Your task to perform on an android device: Empty the shopping cart on newegg. Add razer blade to the cart on newegg Image 0: 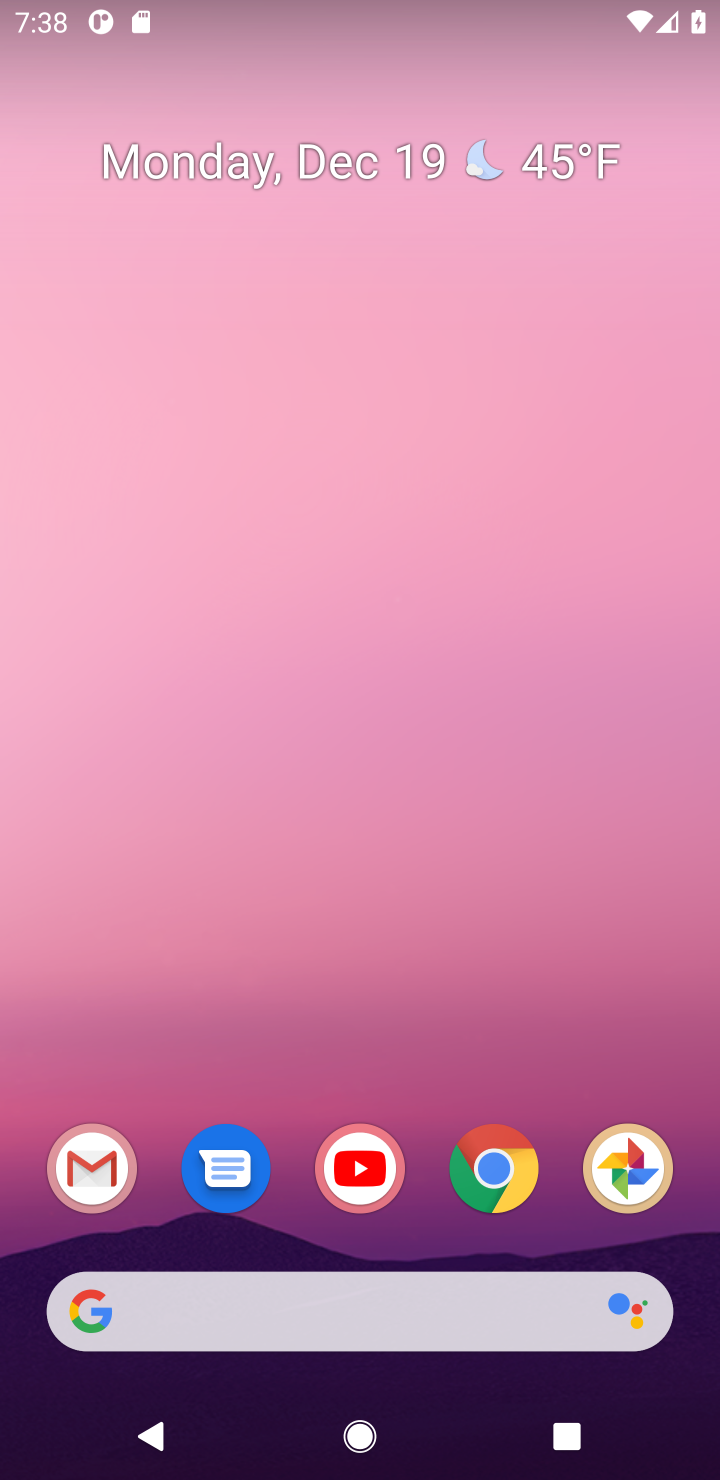
Step 0: click (502, 1185)
Your task to perform on an android device: Empty the shopping cart on newegg. Add razer blade to the cart on newegg Image 1: 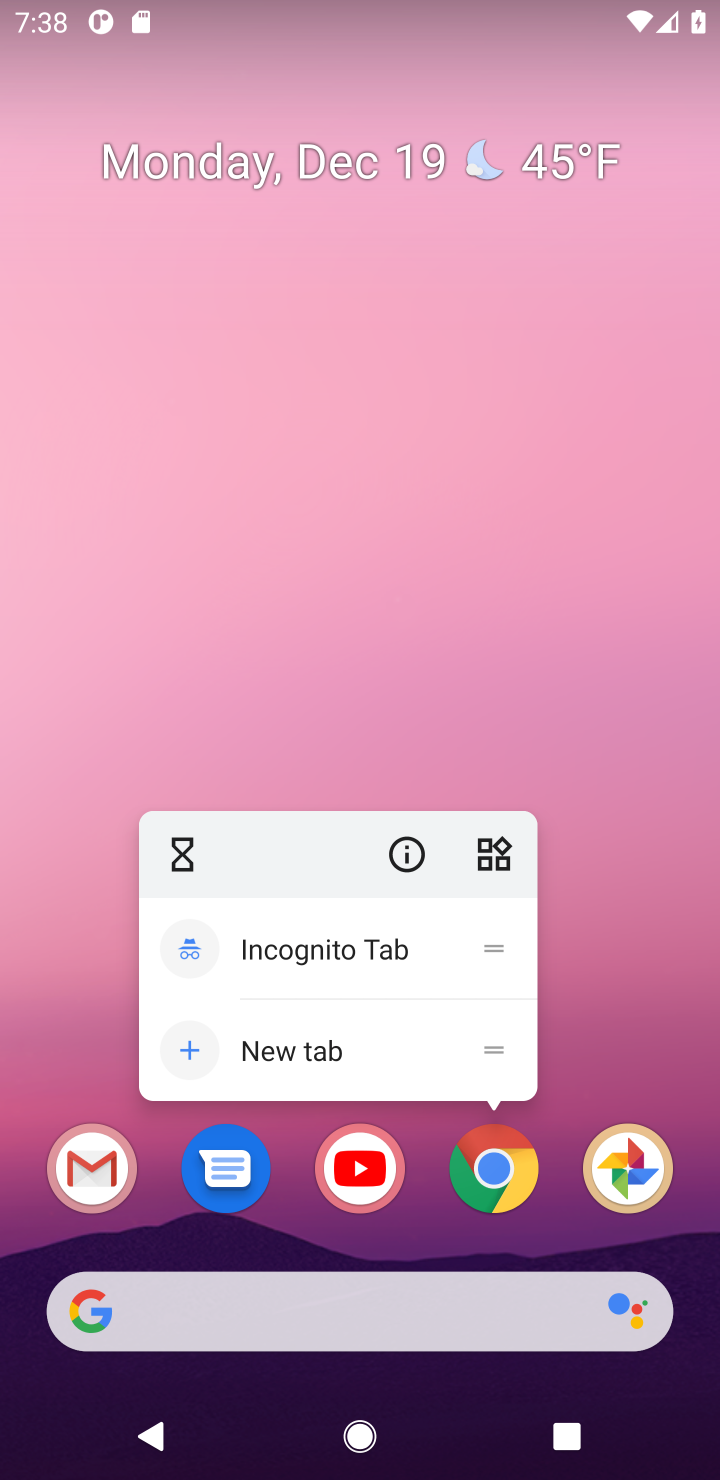
Step 1: click (502, 1185)
Your task to perform on an android device: Empty the shopping cart on newegg. Add razer blade to the cart on newegg Image 2: 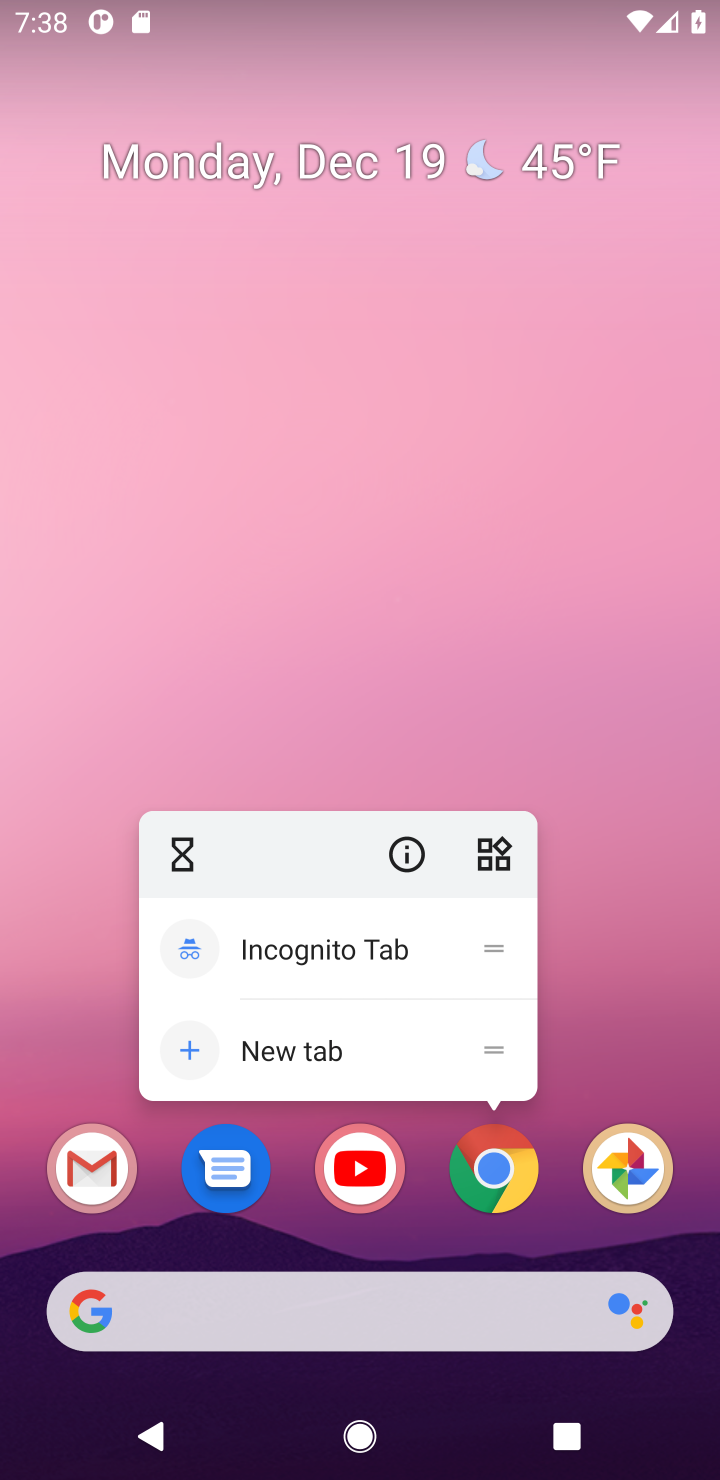
Step 2: click (502, 1169)
Your task to perform on an android device: Empty the shopping cart on newegg. Add razer blade to the cart on newegg Image 3: 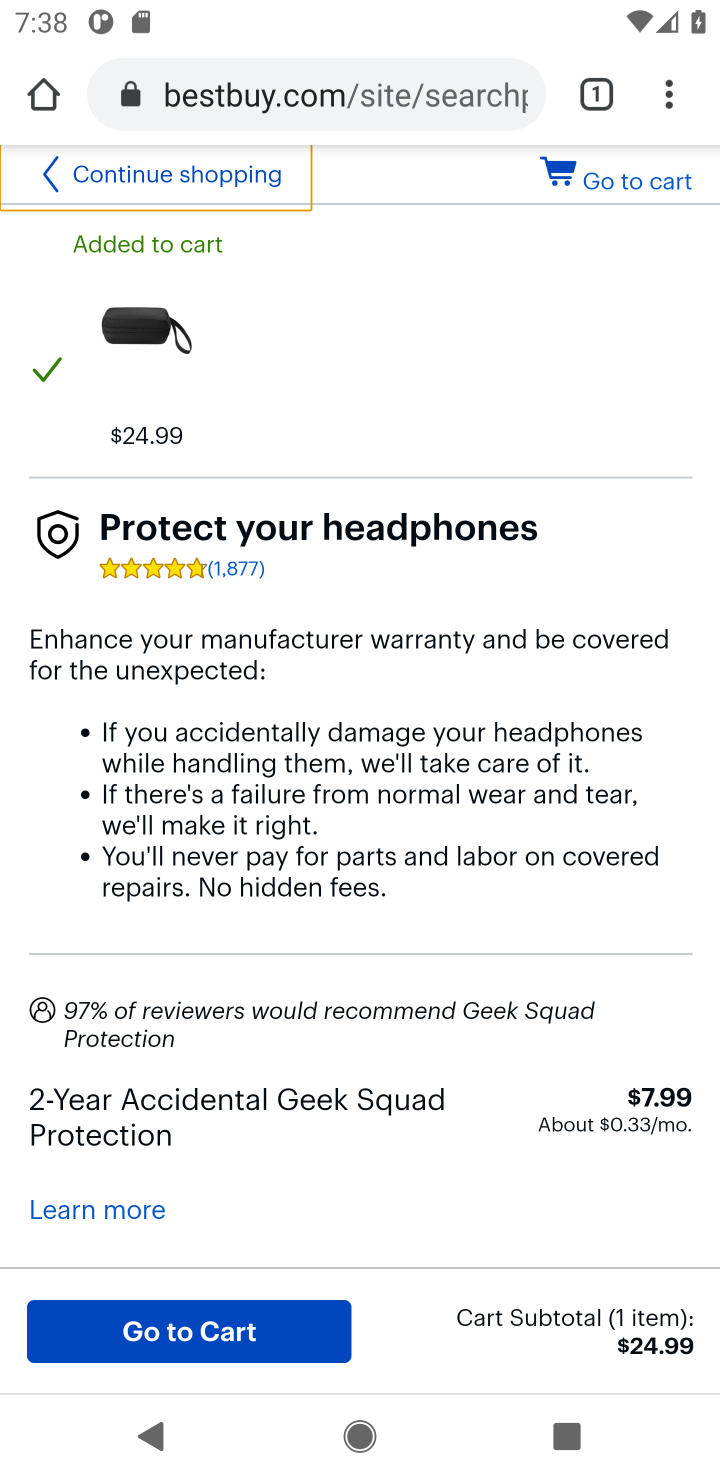
Step 3: click (299, 106)
Your task to perform on an android device: Empty the shopping cart on newegg. Add razer blade to the cart on newegg Image 4: 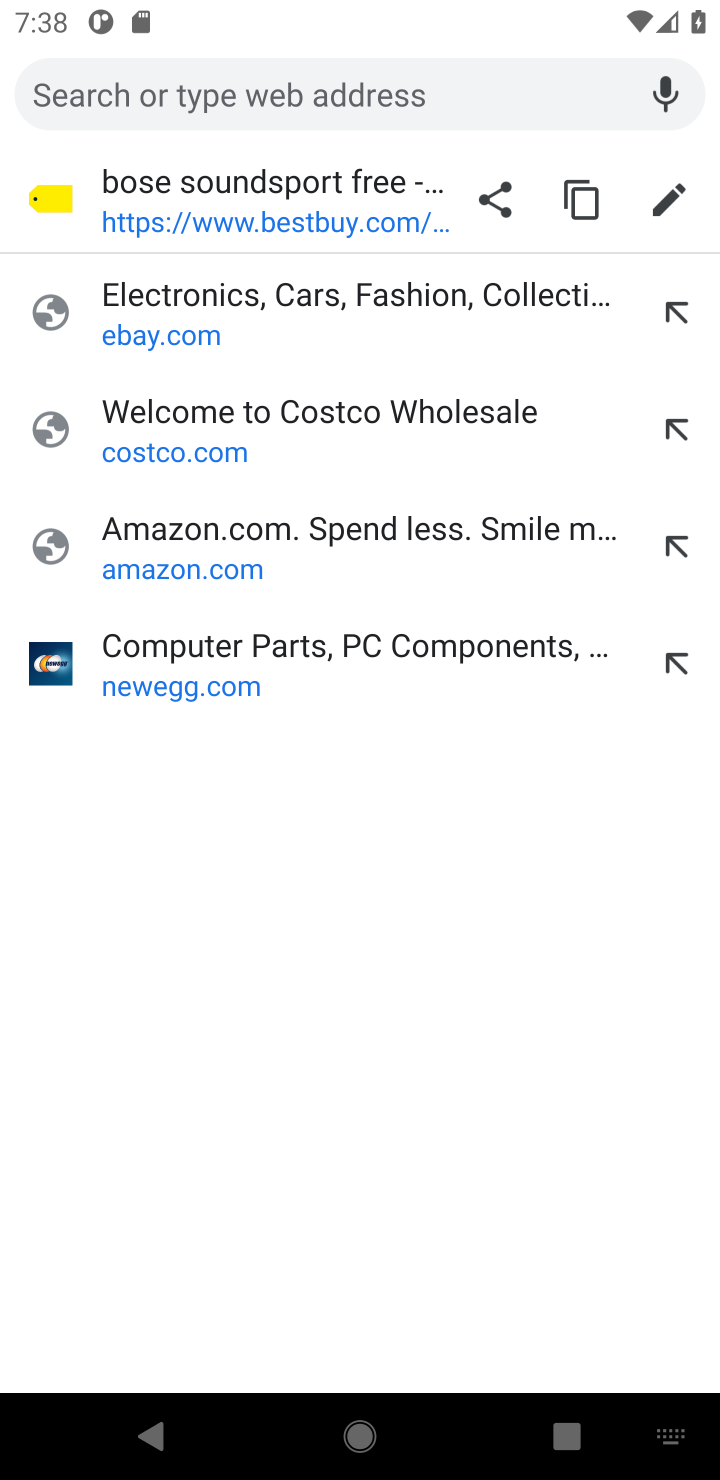
Step 4: click (162, 695)
Your task to perform on an android device: Empty the shopping cart on newegg. Add razer blade to the cart on newegg Image 5: 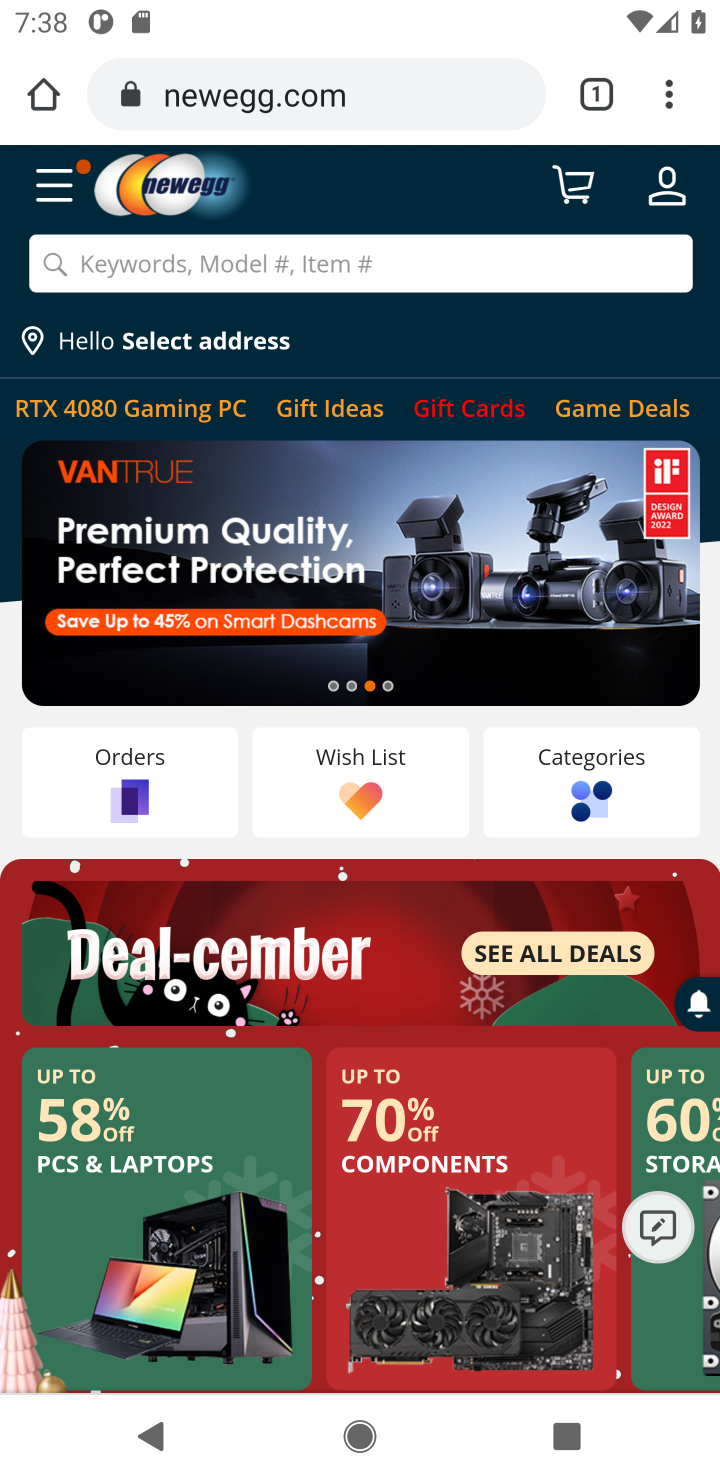
Step 5: click (582, 190)
Your task to perform on an android device: Empty the shopping cart on newegg. Add razer blade to the cart on newegg Image 6: 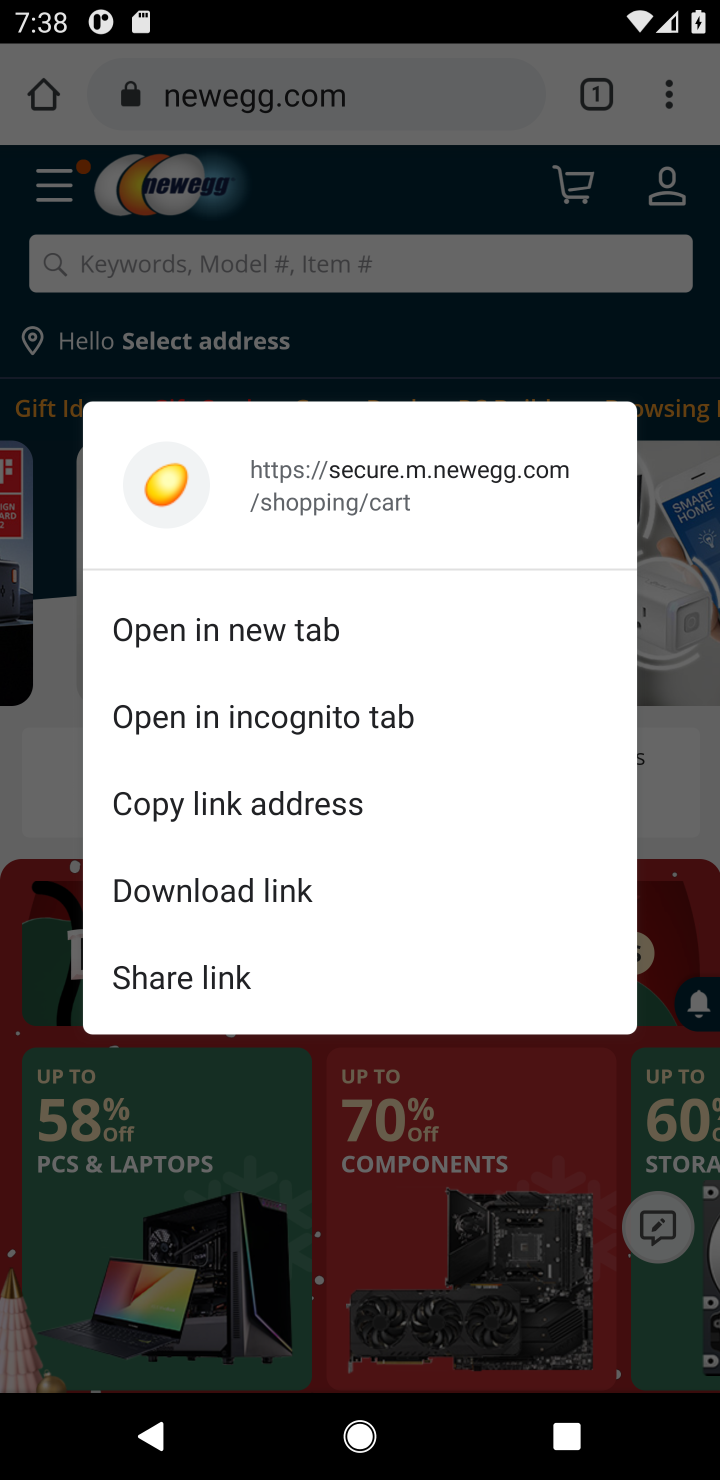
Step 6: click (582, 190)
Your task to perform on an android device: Empty the shopping cart on newegg. Add razer blade to the cart on newegg Image 7: 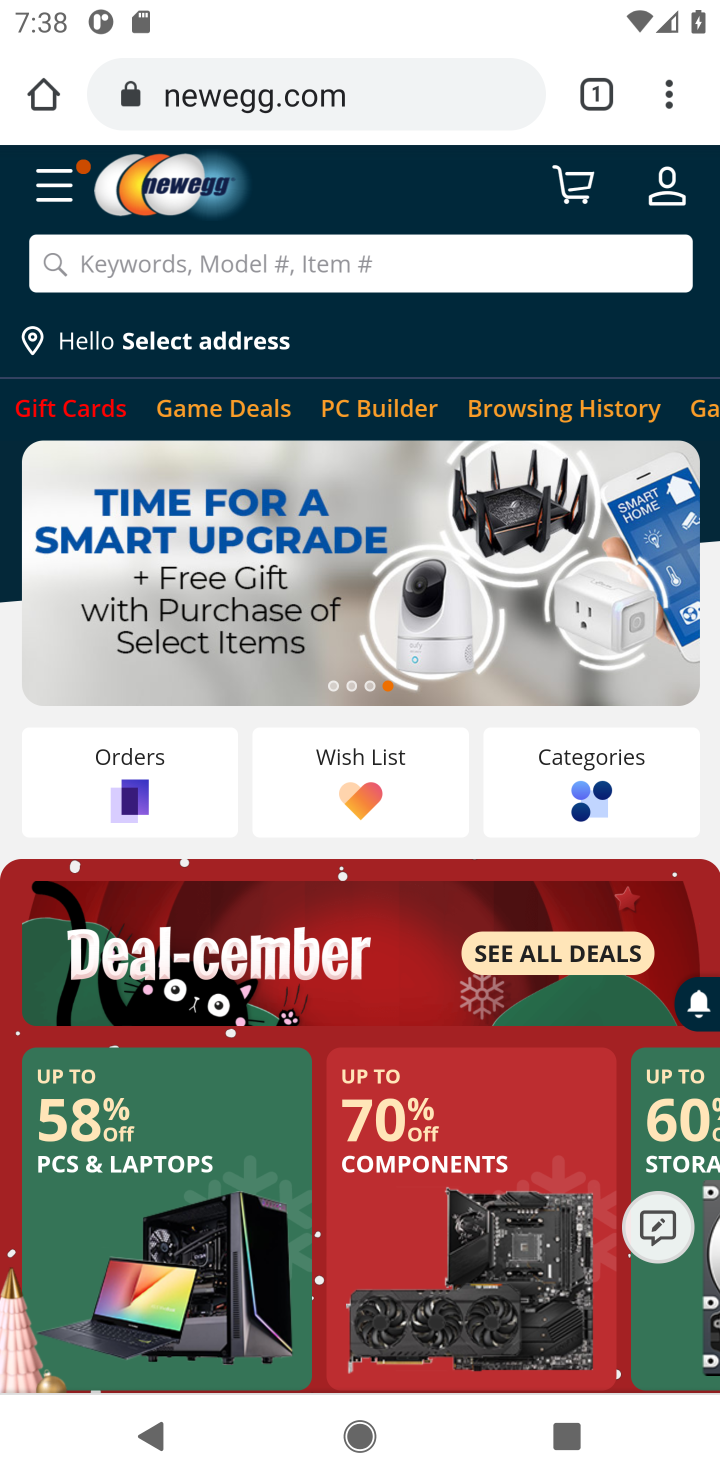
Step 7: click (582, 190)
Your task to perform on an android device: Empty the shopping cart on newegg. Add razer blade to the cart on newegg Image 8: 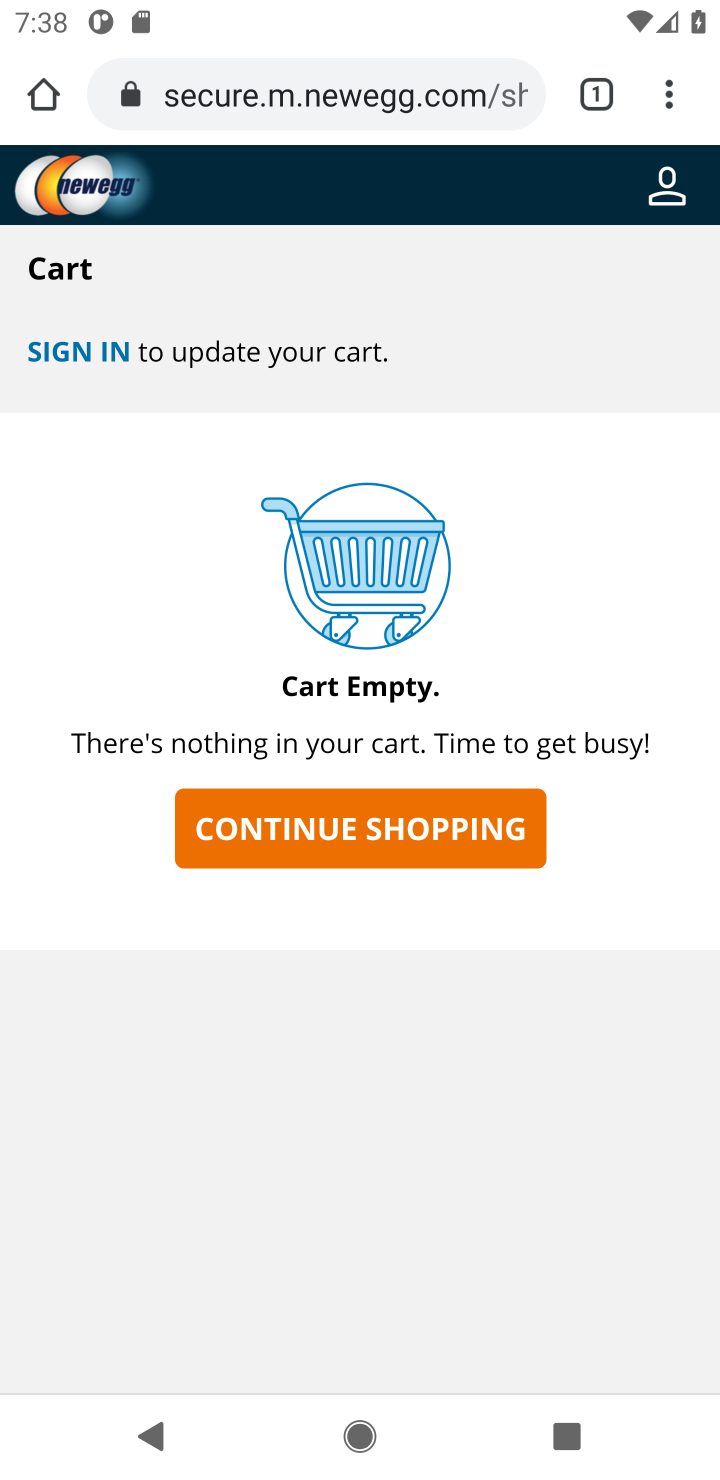
Step 8: click (320, 817)
Your task to perform on an android device: Empty the shopping cart on newegg. Add razer blade to the cart on newegg Image 9: 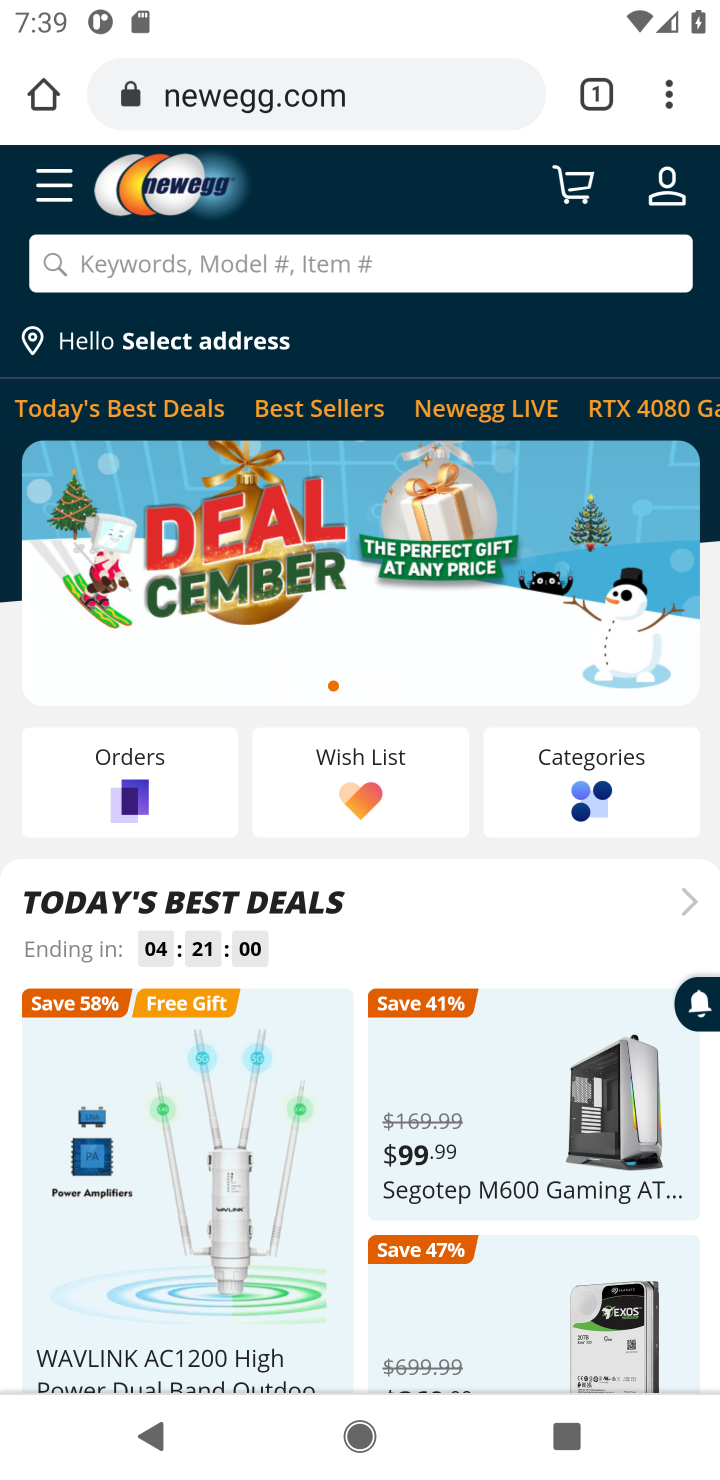
Step 9: click (142, 283)
Your task to perform on an android device: Empty the shopping cart on newegg. Add razer blade to the cart on newegg Image 10: 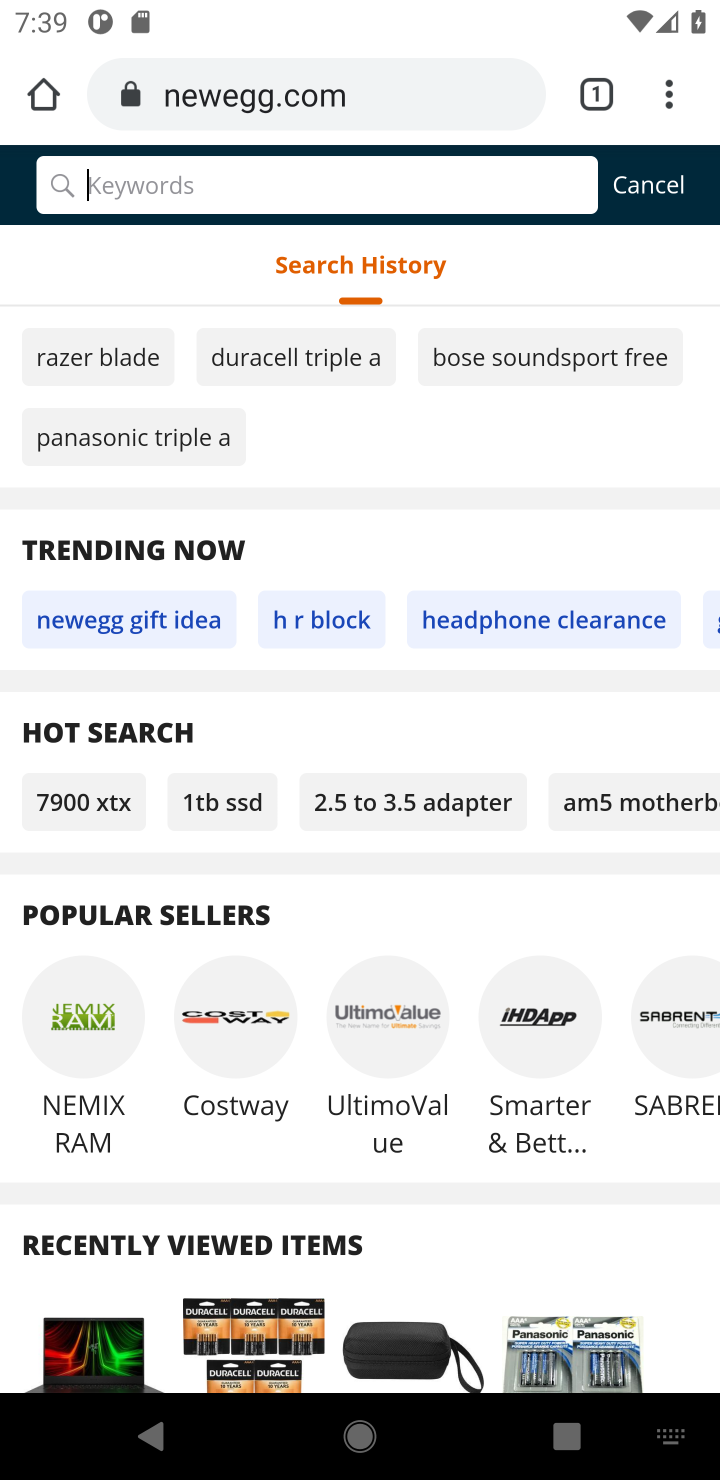
Step 10: type "razer blade"
Your task to perform on an android device: Empty the shopping cart on newegg. Add razer blade to the cart on newegg Image 11: 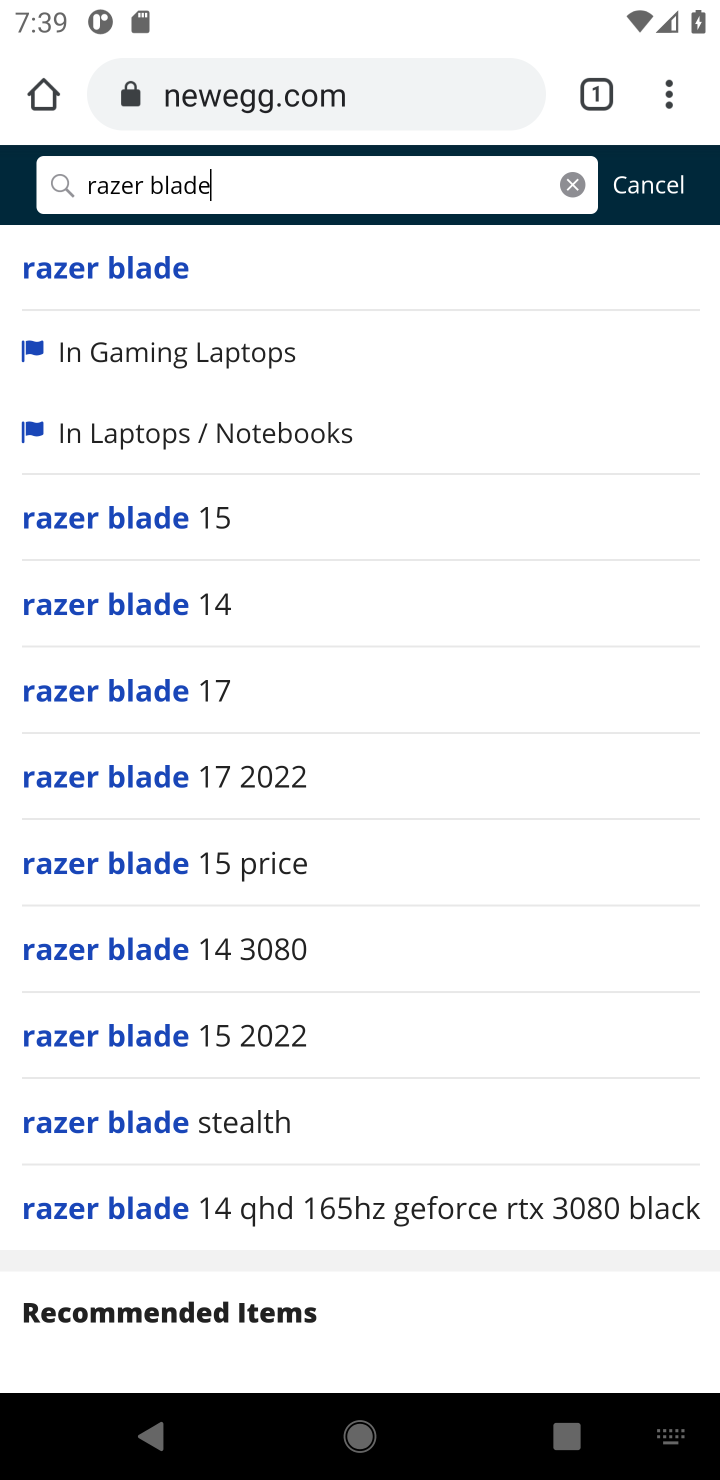
Step 11: click (120, 264)
Your task to perform on an android device: Empty the shopping cart on newegg. Add razer blade to the cart on newegg Image 12: 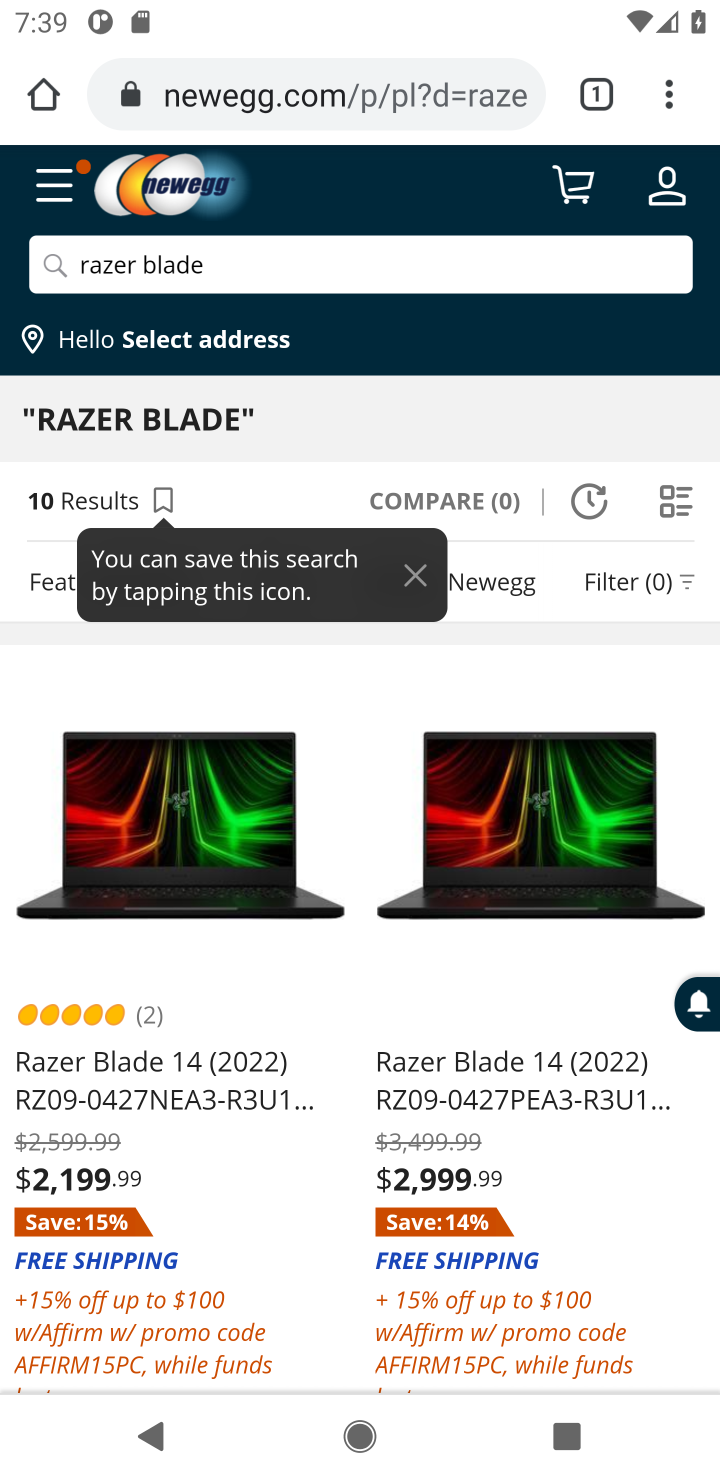
Step 12: click (110, 1077)
Your task to perform on an android device: Empty the shopping cart on newegg. Add razer blade to the cart on newegg Image 13: 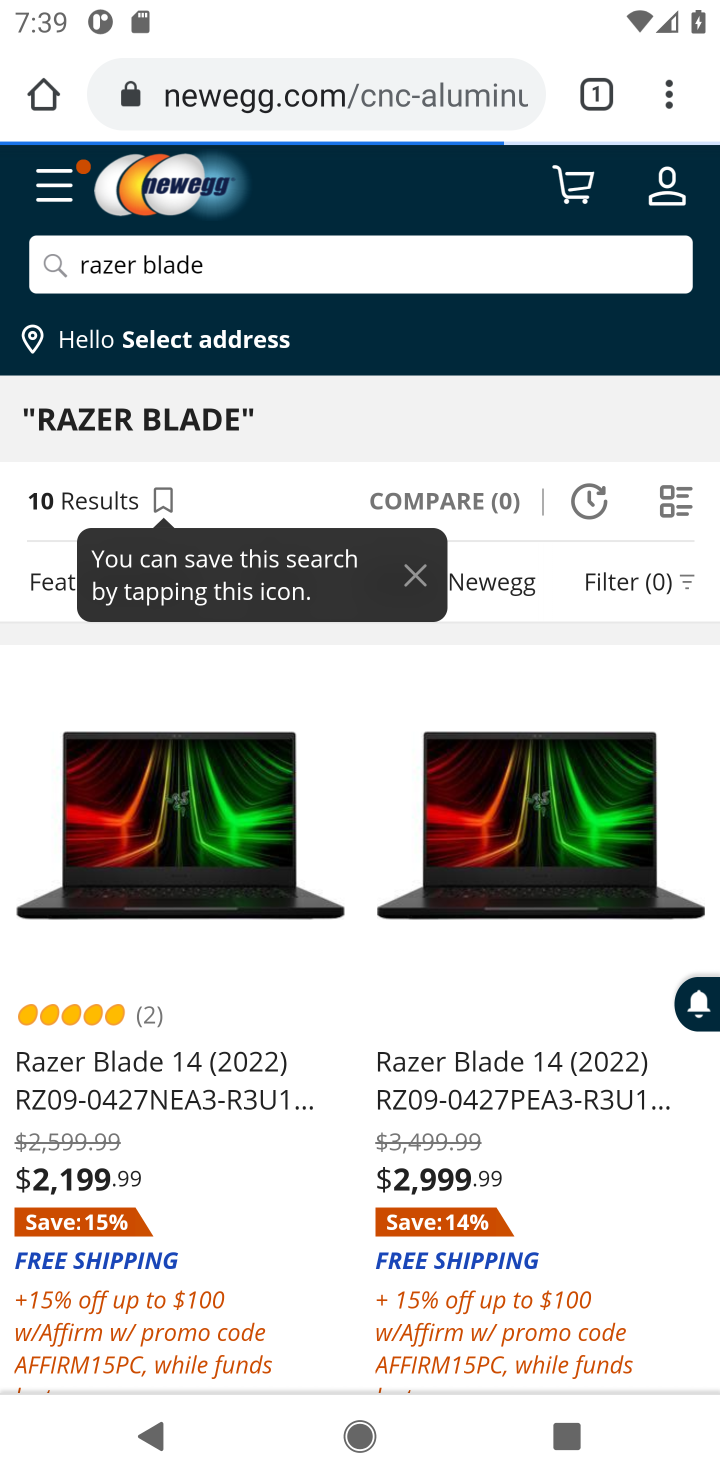
Step 13: click (123, 1094)
Your task to perform on an android device: Empty the shopping cart on newegg. Add razer blade to the cart on newegg Image 14: 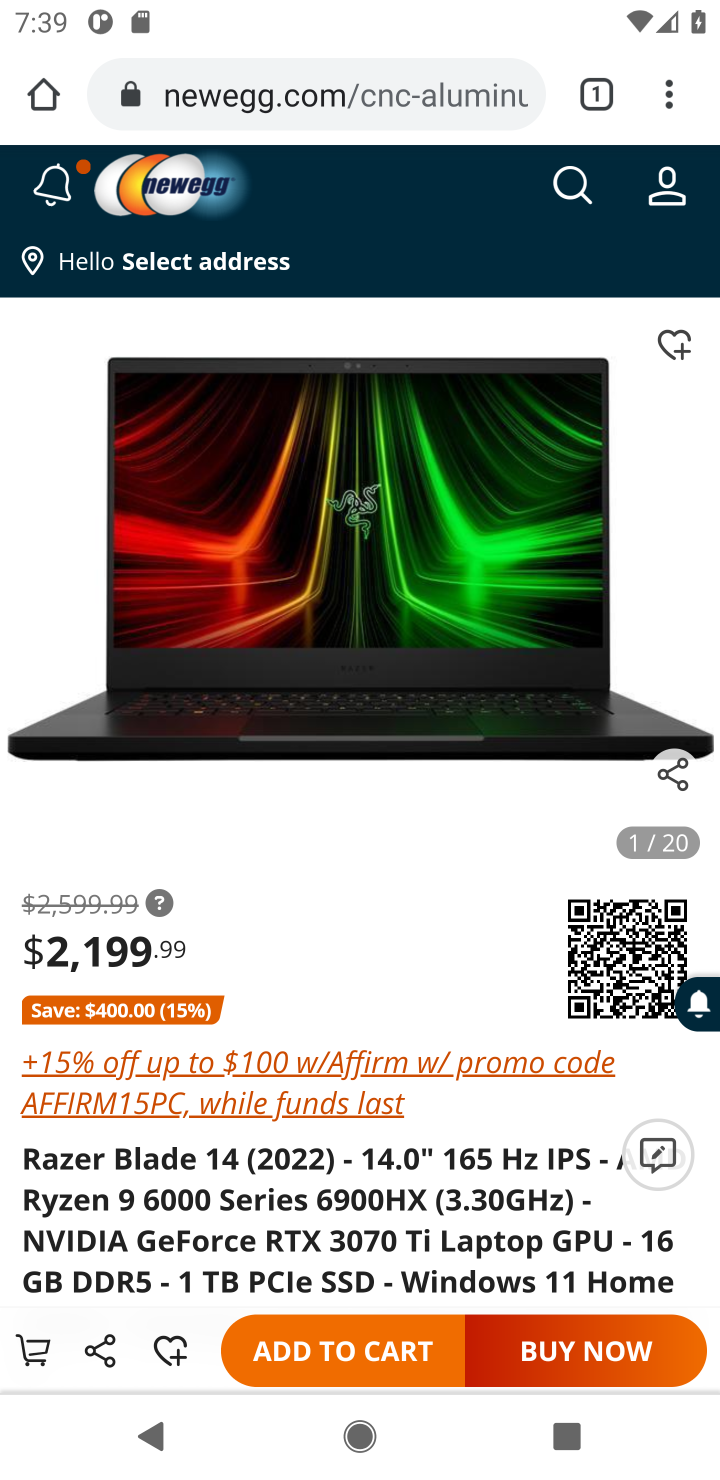
Step 14: click (341, 1346)
Your task to perform on an android device: Empty the shopping cart on newegg. Add razer blade to the cart on newegg Image 15: 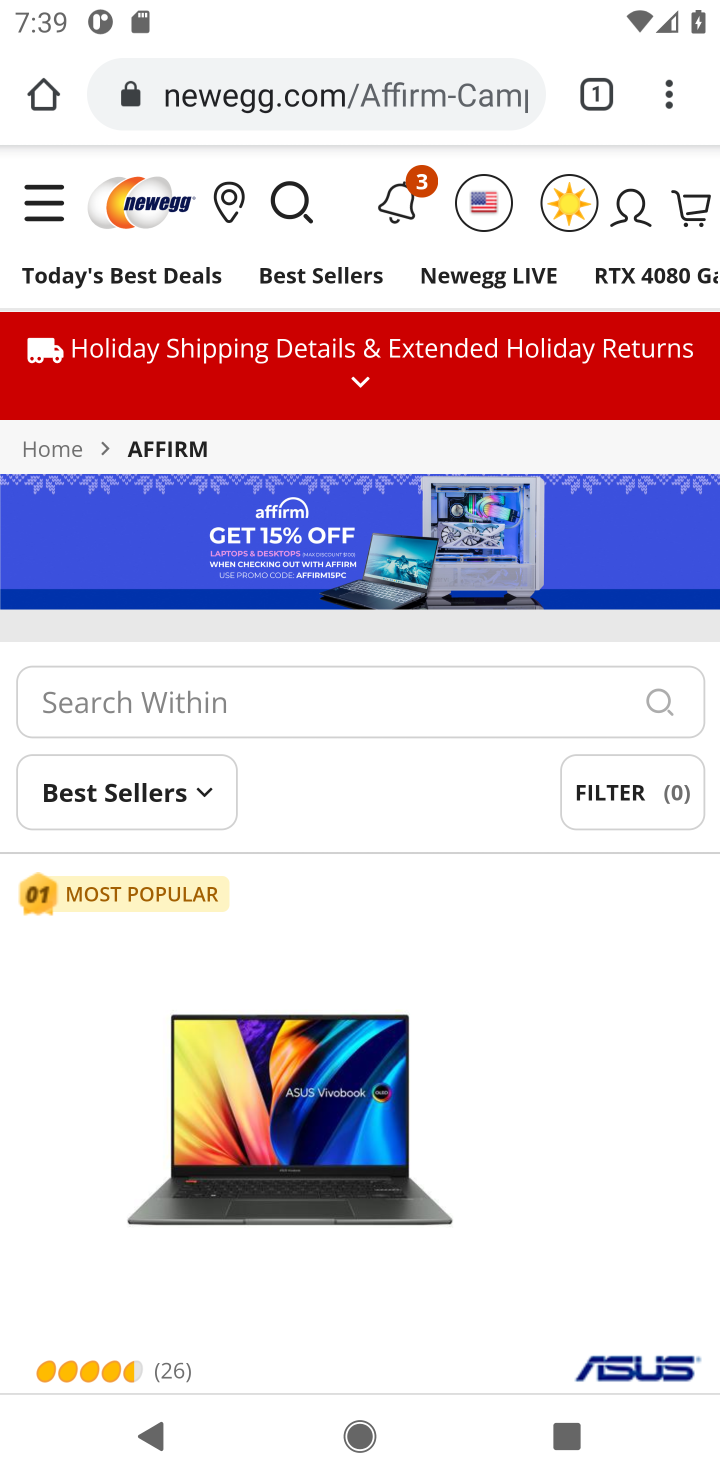
Step 15: press back button
Your task to perform on an android device: Empty the shopping cart on newegg. Add razer blade to the cart on newegg Image 16: 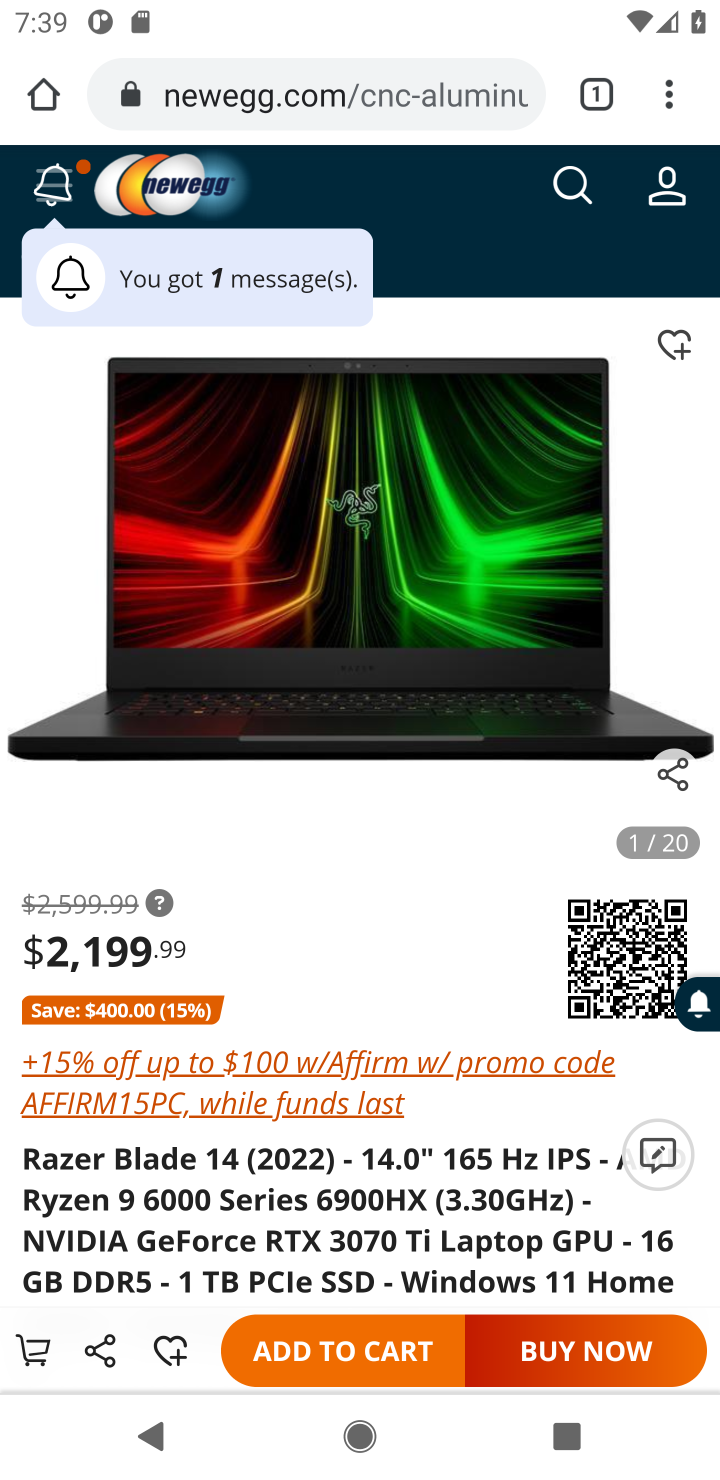
Step 16: click (325, 1343)
Your task to perform on an android device: Empty the shopping cart on newegg. Add razer blade to the cart on newegg Image 17: 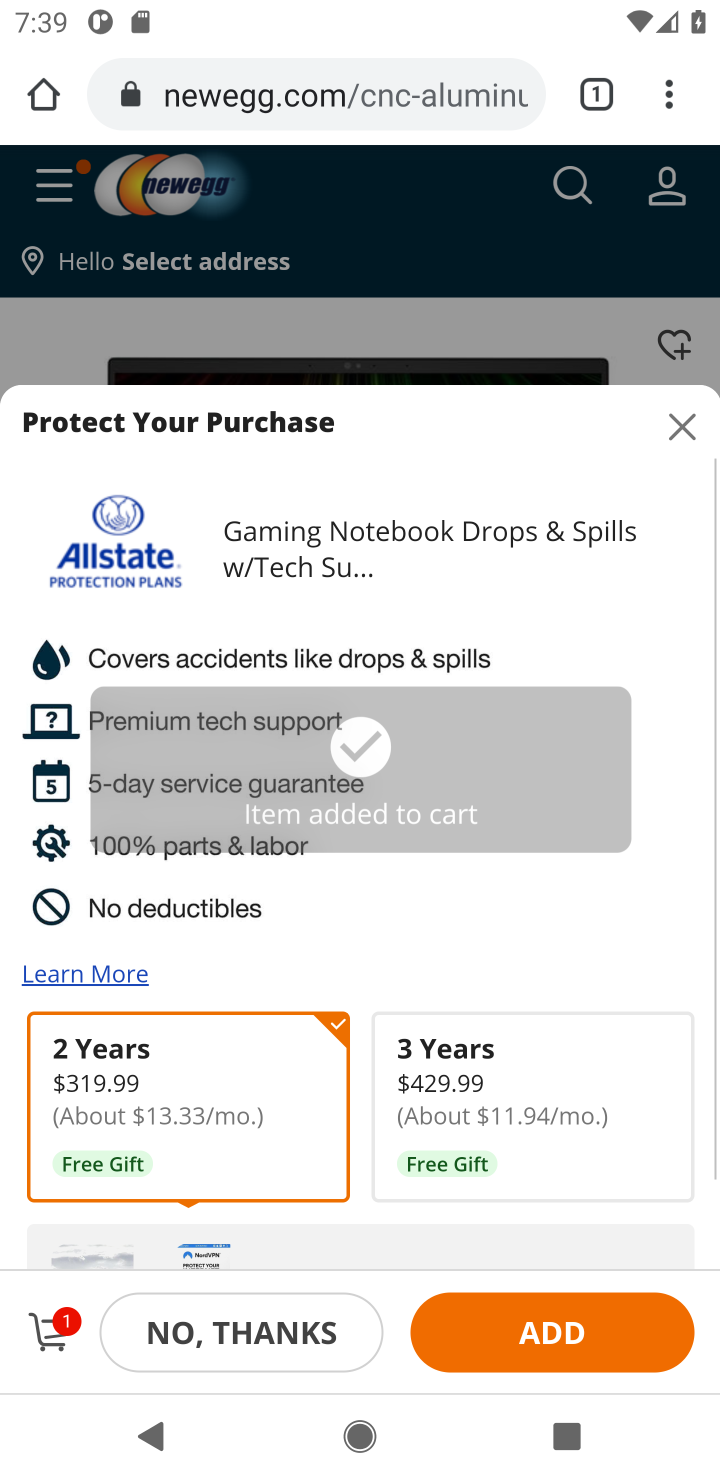
Step 17: task complete